Your task to perform on an android device: Do I have any events tomorrow? Image 0: 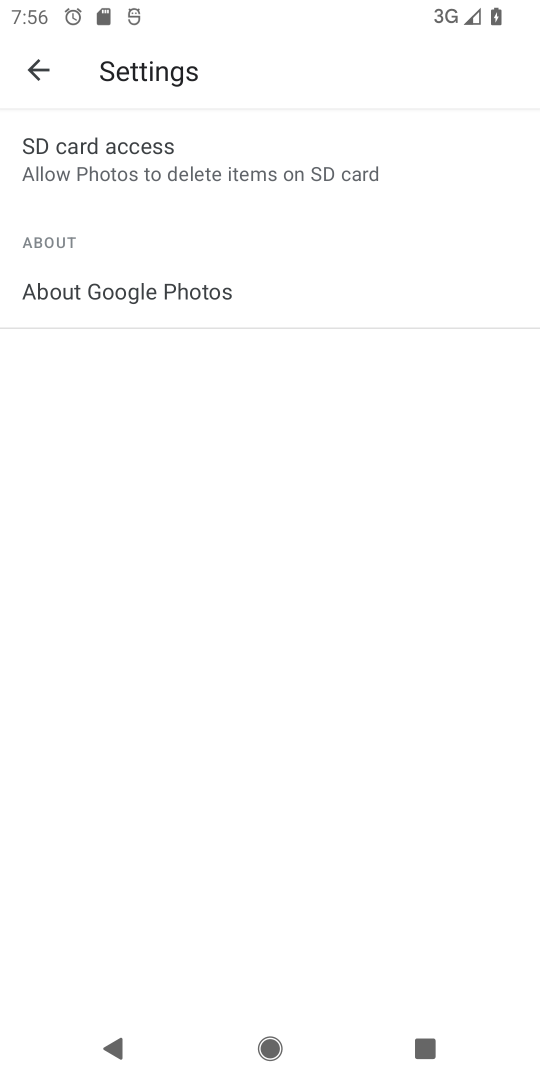
Step 0: press home button
Your task to perform on an android device: Do I have any events tomorrow? Image 1: 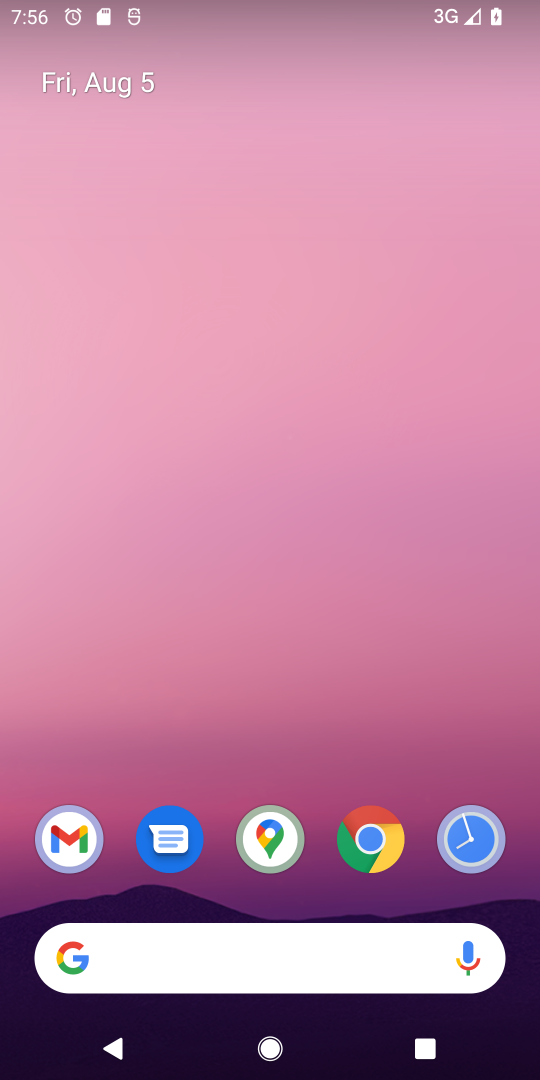
Step 1: drag from (229, 781) to (253, 193)
Your task to perform on an android device: Do I have any events tomorrow? Image 2: 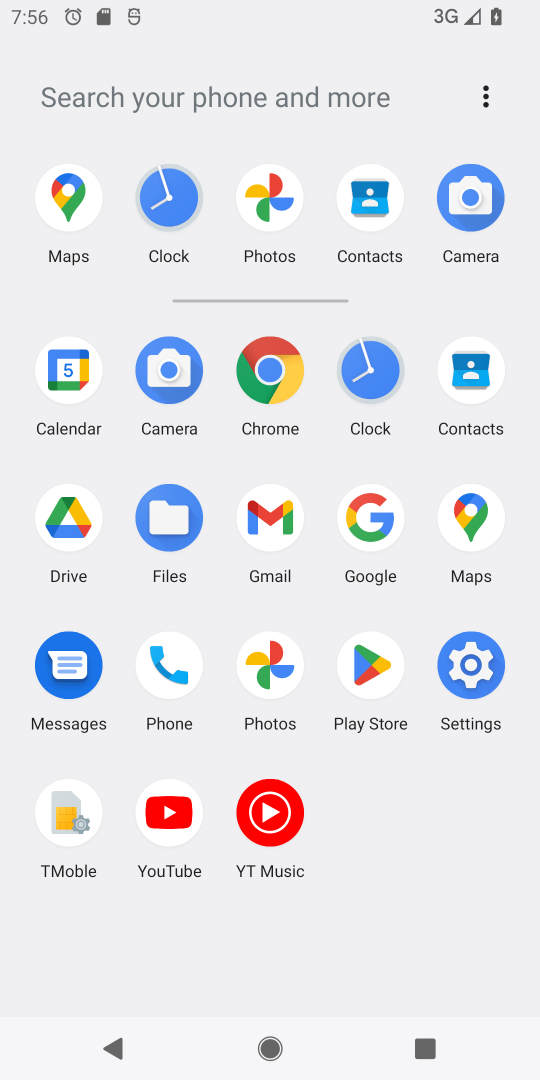
Step 2: click (68, 386)
Your task to perform on an android device: Do I have any events tomorrow? Image 3: 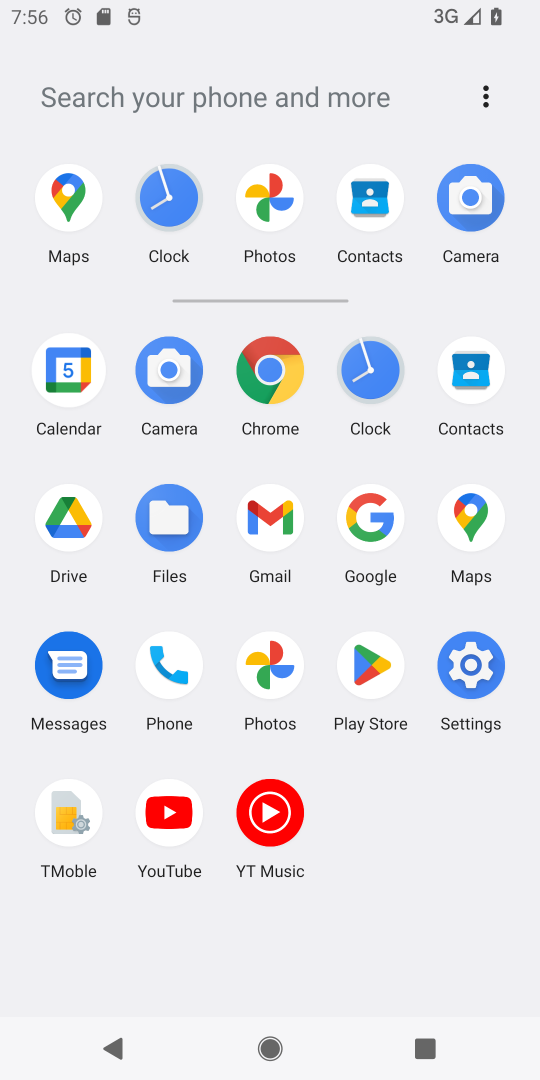
Step 3: click (87, 372)
Your task to perform on an android device: Do I have any events tomorrow? Image 4: 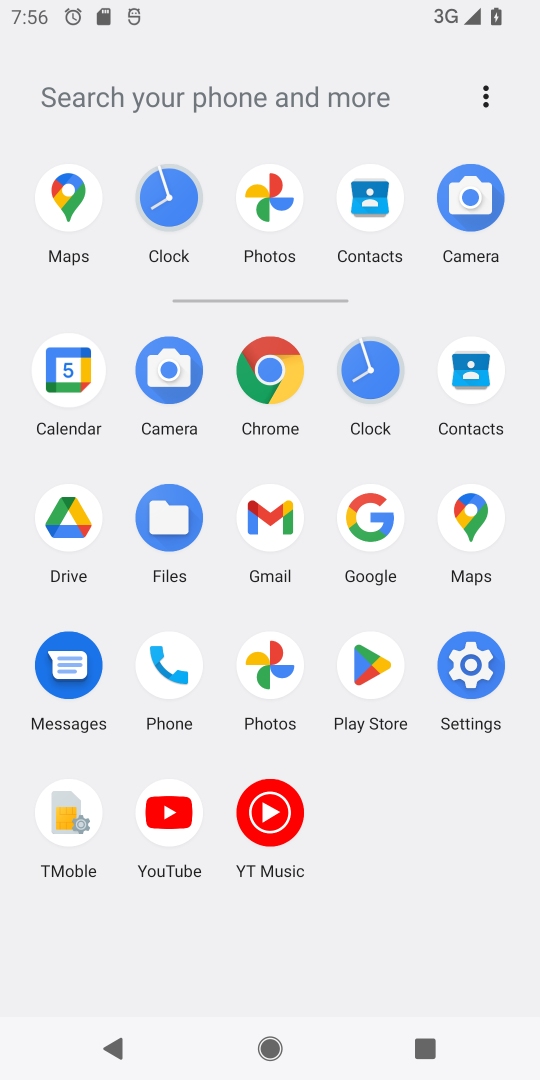
Step 4: click (83, 406)
Your task to perform on an android device: Do I have any events tomorrow? Image 5: 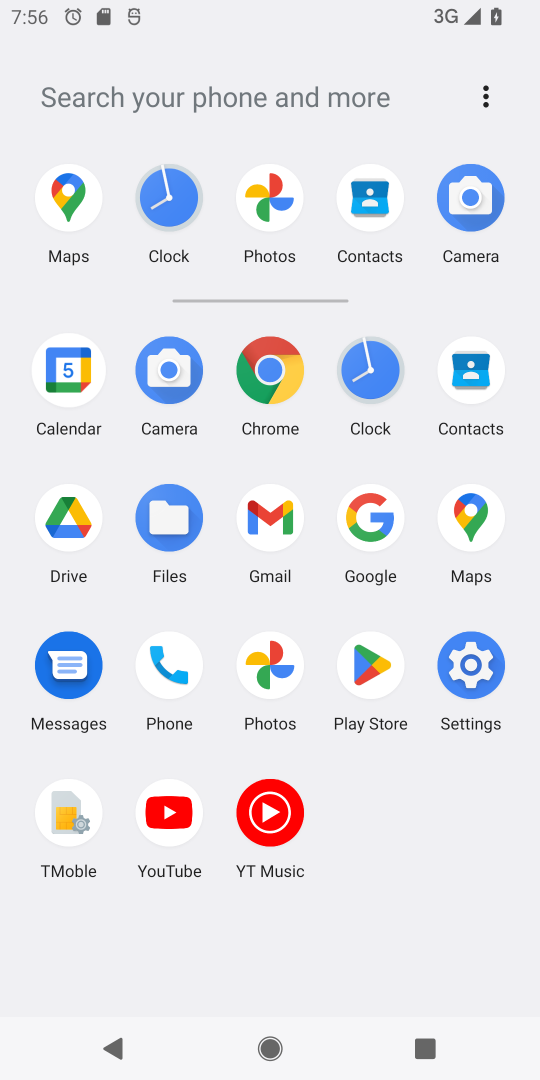
Step 5: click (66, 373)
Your task to perform on an android device: Do I have any events tomorrow? Image 6: 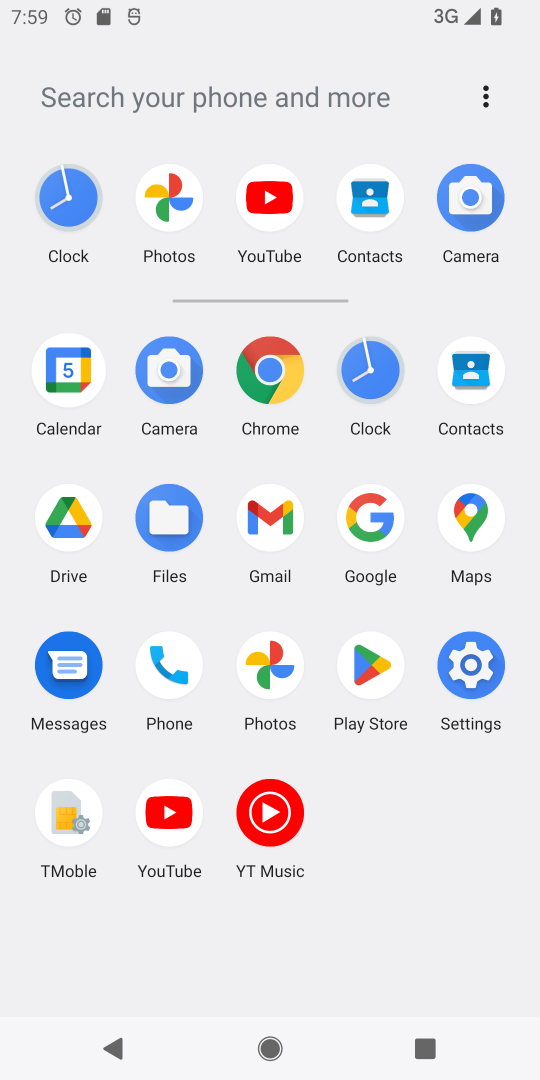
Step 6: click (66, 373)
Your task to perform on an android device: Do I have any events tomorrow? Image 7: 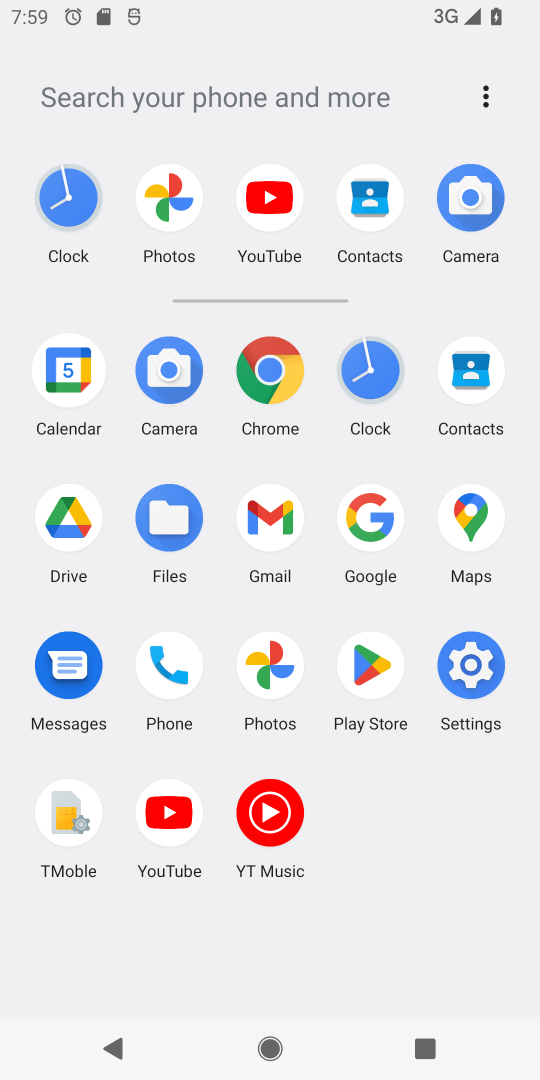
Step 7: task complete